Your task to perform on an android device: Go to location settings Image 0: 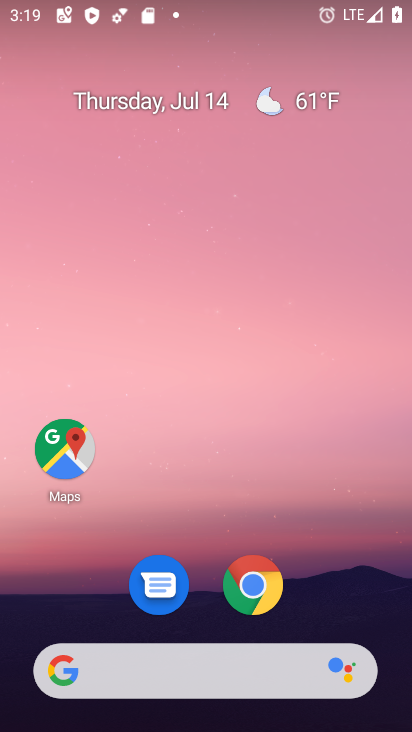
Step 0: drag from (290, 490) to (295, 37)
Your task to perform on an android device: Go to location settings Image 1: 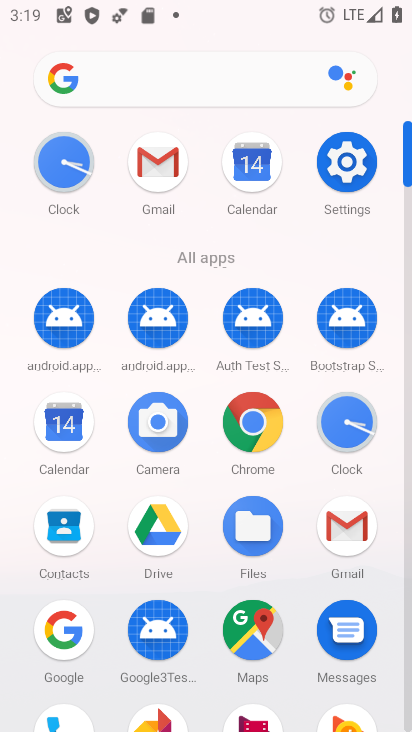
Step 1: click (347, 160)
Your task to perform on an android device: Go to location settings Image 2: 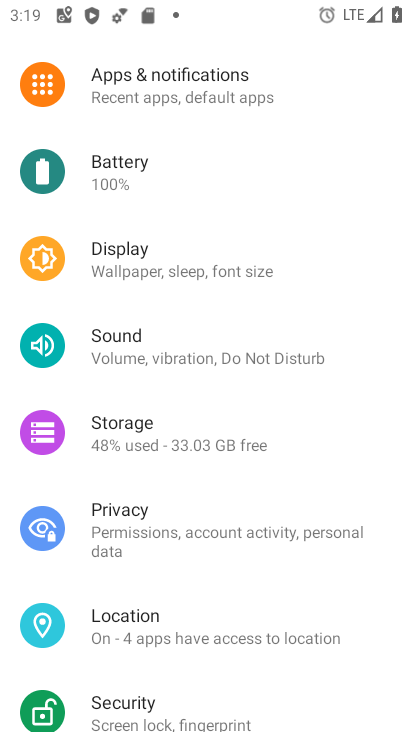
Step 2: click (229, 625)
Your task to perform on an android device: Go to location settings Image 3: 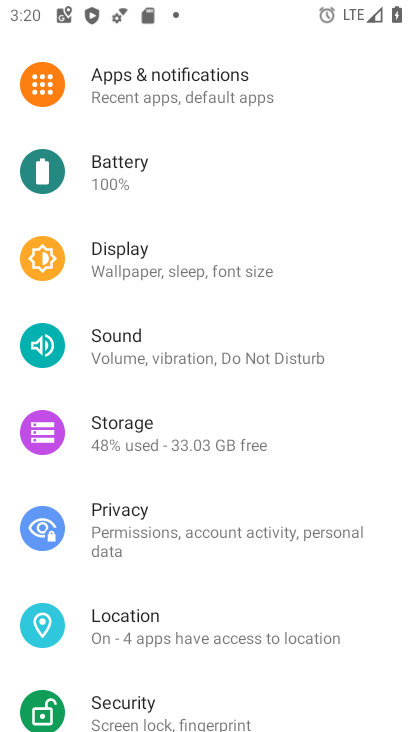
Step 3: click (230, 629)
Your task to perform on an android device: Go to location settings Image 4: 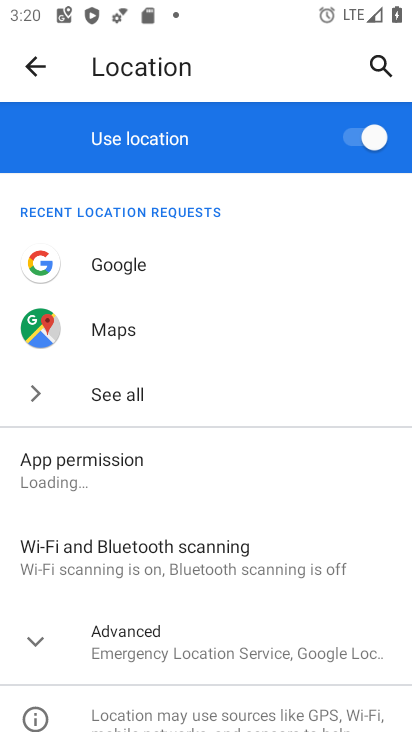
Step 4: task complete